Your task to perform on an android device: toggle data saver in the chrome app Image 0: 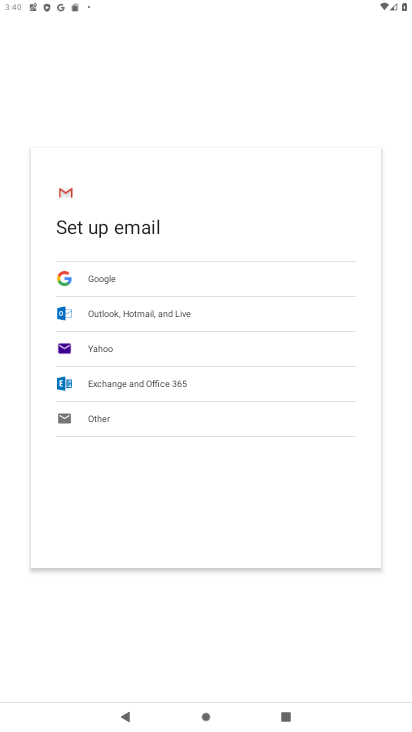
Step 0: press home button
Your task to perform on an android device: toggle data saver in the chrome app Image 1: 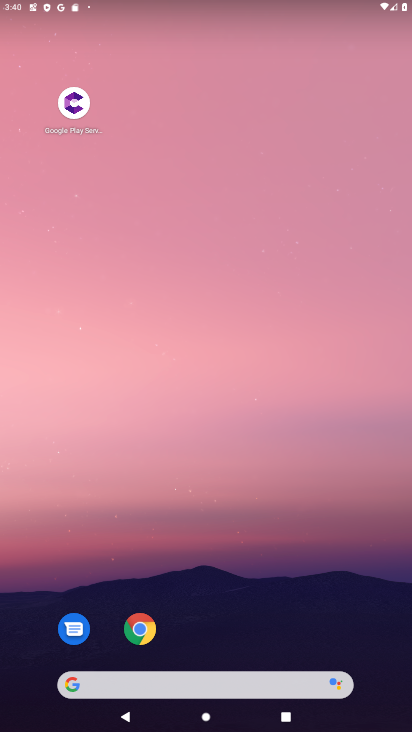
Step 1: click (135, 625)
Your task to perform on an android device: toggle data saver in the chrome app Image 2: 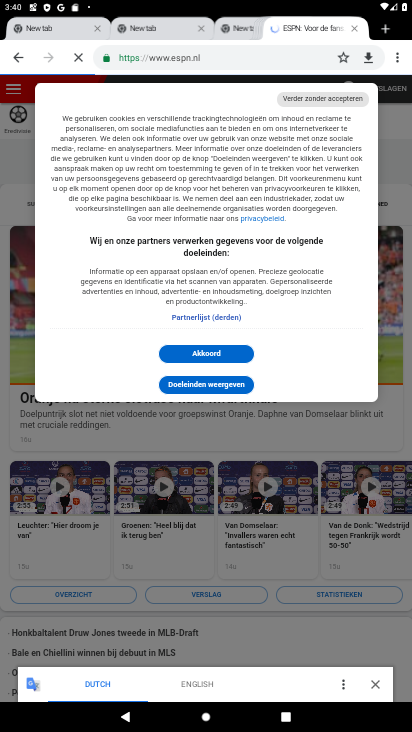
Step 2: click (394, 59)
Your task to perform on an android device: toggle data saver in the chrome app Image 3: 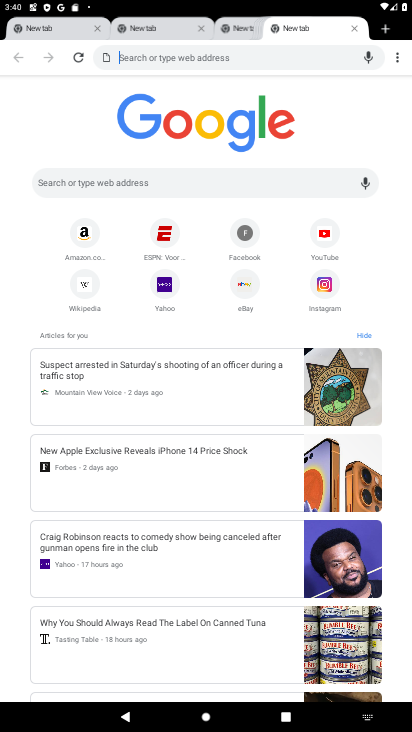
Step 3: click (394, 59)
Your task to perform on an android device: toggle data saver in the chrome app Image 4: 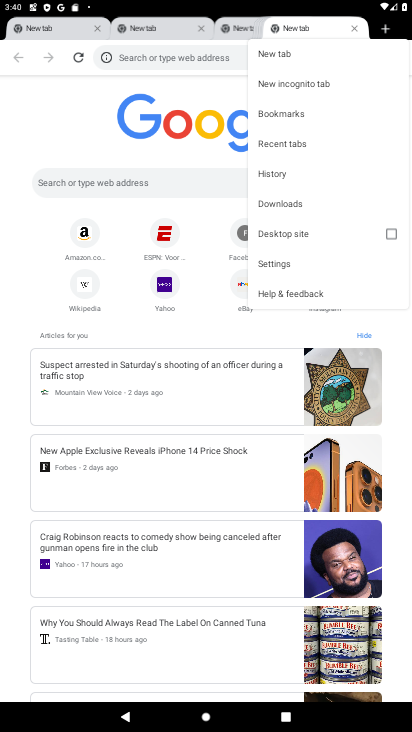
Step 4: click (287, 265)
Your task to perform on an android device: toggle data saver in the chrome app Image 5: 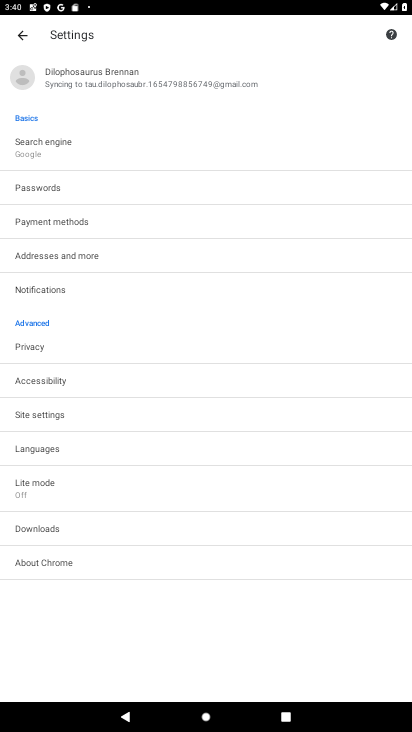
Step 5: click (44, 490)
Your task to perform on an android device: toggle data saver in the chrome app Image 6: 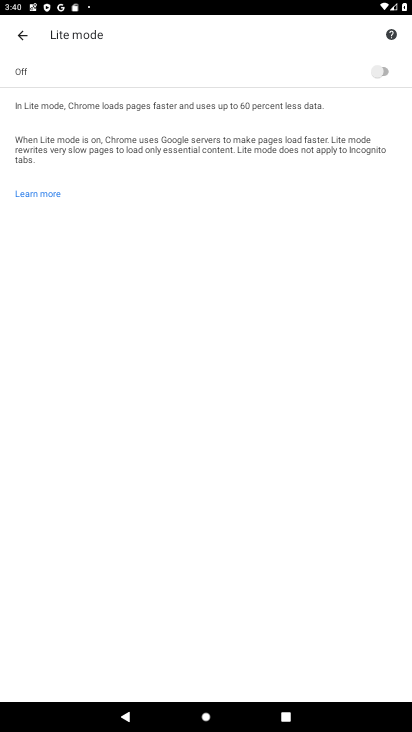
Step 6: click (388, 72)
Your task to perform on an android device: toggle data saver in the chrome app Image 7: 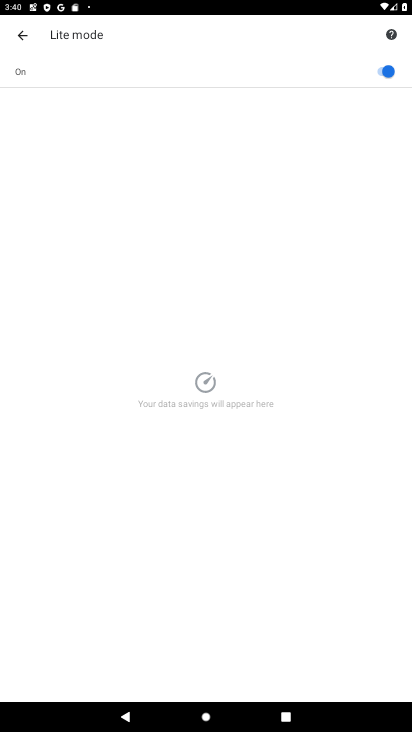
Step 7: task complete